Your task to perform on an android device: Open Google Maps Image 0: 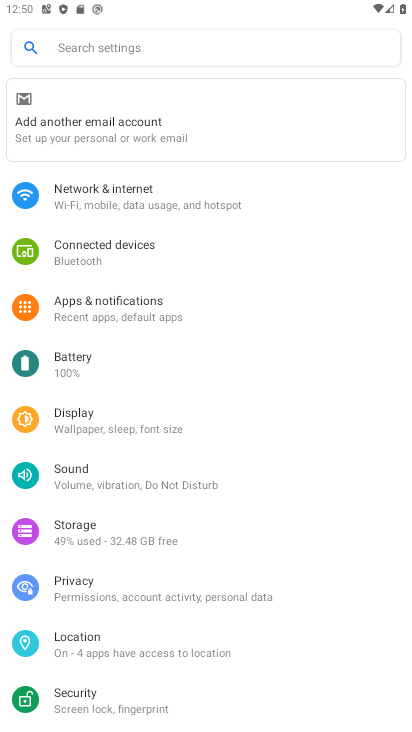
Step 0: press home button
Your task to perform on an android device: Open Google Maps Image 1: 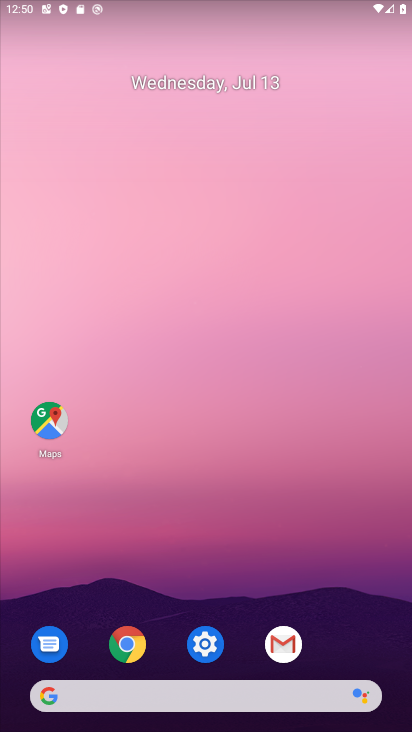
Step 1: click (50, 427)
Your task to perform on an android device: Open Google Maps Image 2: 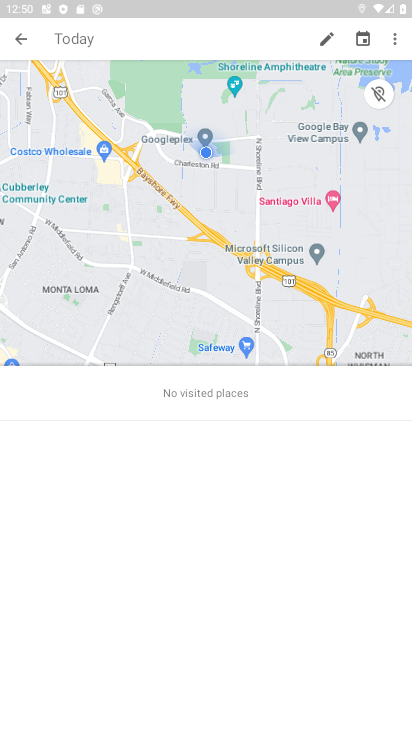
Step 2: click (20, 42)
Your task to perform on an android device: Open Google Maps Image 3: 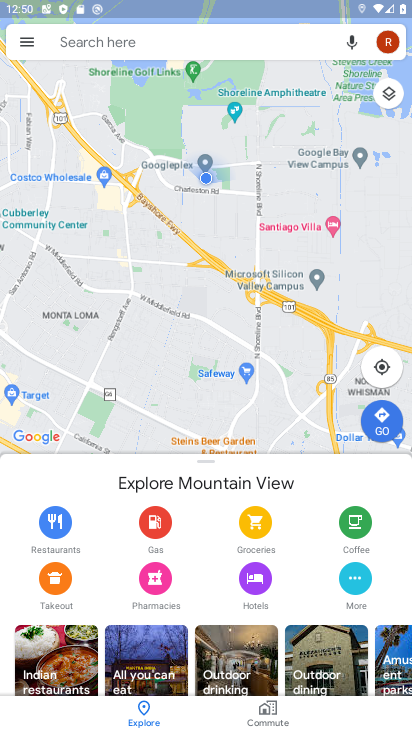
Step 3: click (178, 293)
Your task to perform on an android device: Open Google Maps Image 4: 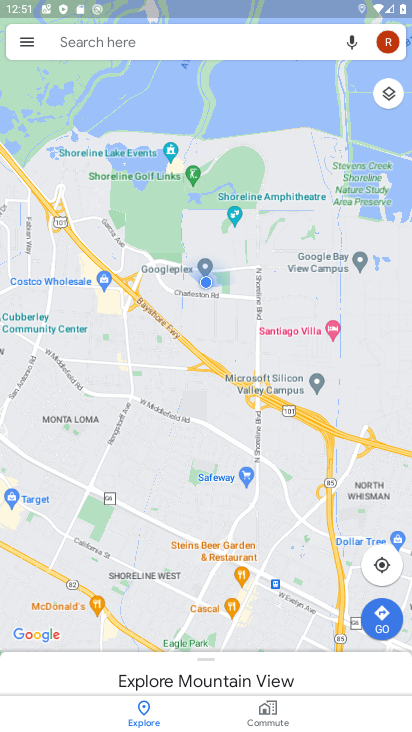
Step 4: task complete